Your task to perform on an android device: What is the news today? Image 0: 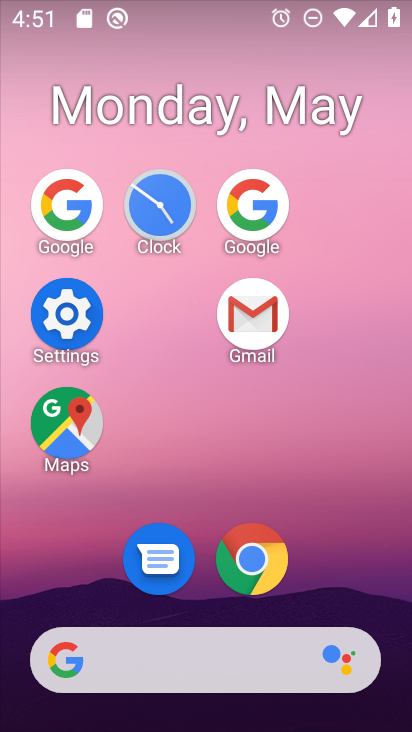
Step 0: click (246, 232)
Your task to perform on an android device: What is the news today? Image 1: 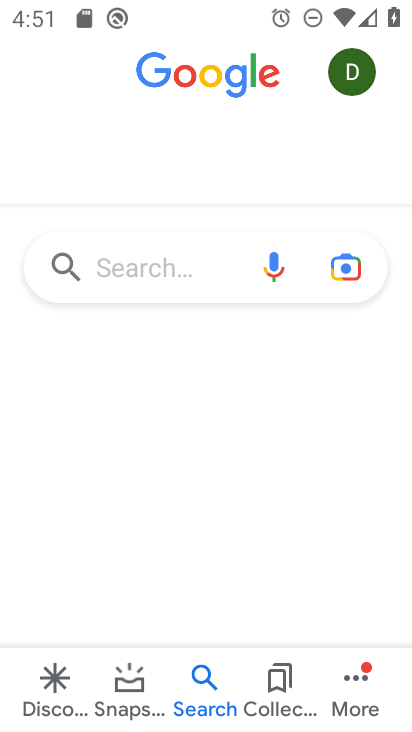
Step 1: click (170, 265)
Your task to perform on an android device: What is the news today? Image 2: 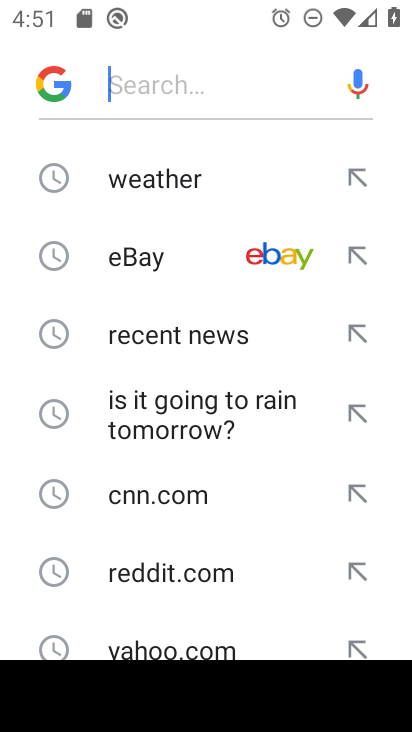
Step 2: drag from (213, 559) to (226, 220)
Your task to perform on an android device: What is the news today? Image 3: 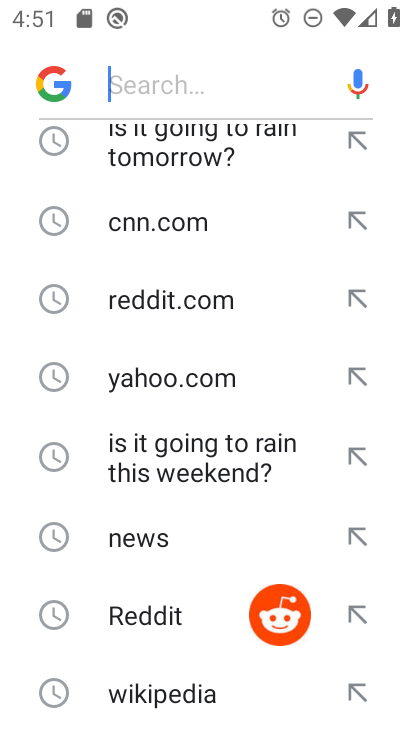
Step 3: click (179, 530)
Your task to perform on an android device: What is the news today? Image 4: 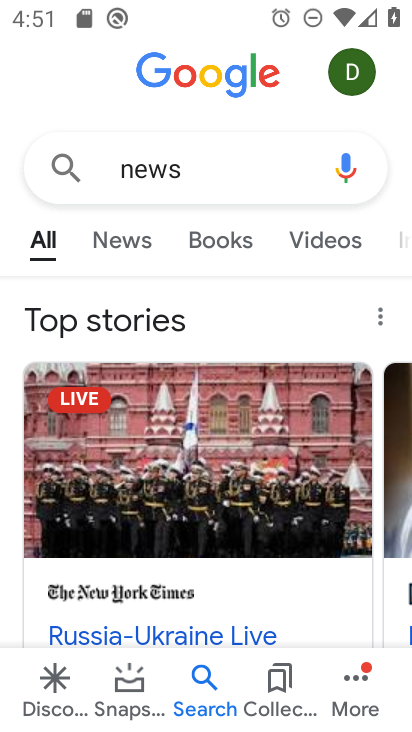
Step 4: task complete